Your task to perform on an android device: Show me popular games on the Play Store Image 0: 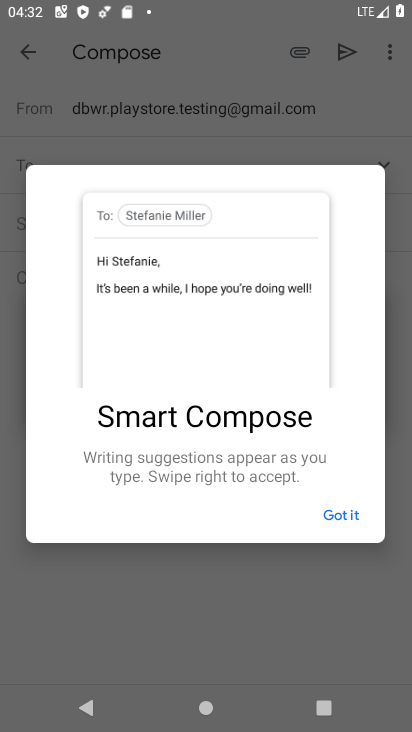
Step 0: press home button
Your task to perform on an android device: Show me popular games on the Play Store Image 1: 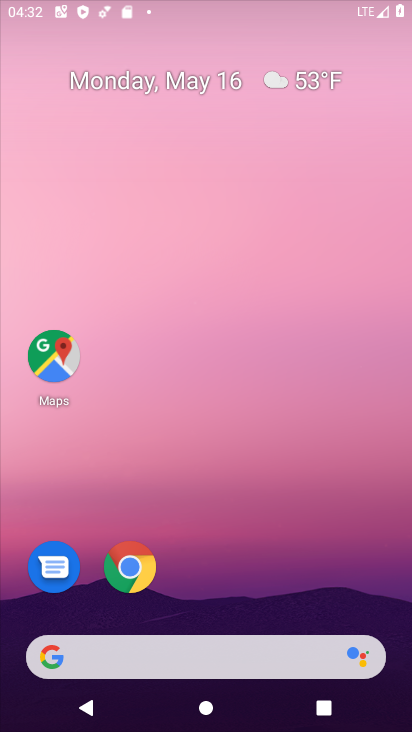
Step 1: drag from (270, 680) to (231, 118)
Your task to perform on an android device: Show me popular games on the Play Store Image 2: 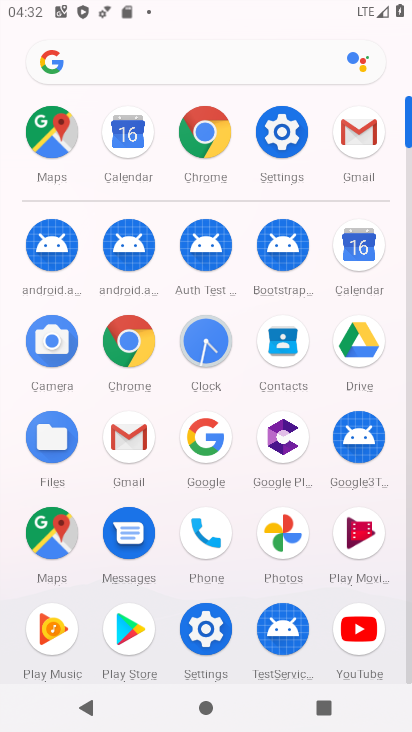
Step 2: drag from (301, 607) to (284, 246)
Your task to perform on an android device: Show me popular games on the Play Store Image 3: 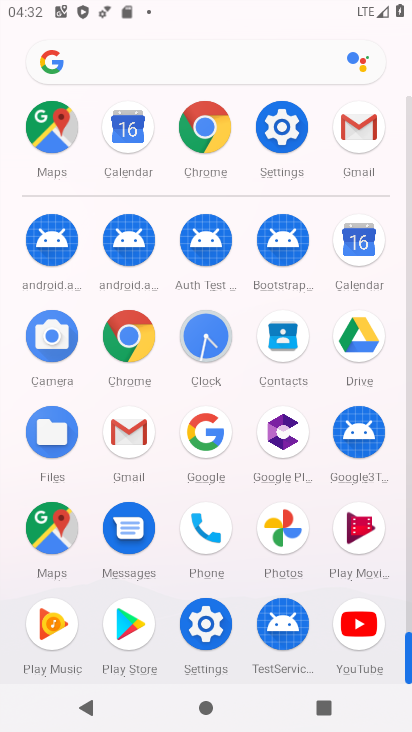
Step 3: click (129, 624)
Your task to perform on an android device: Show me popular games on the Play Store Image 4: 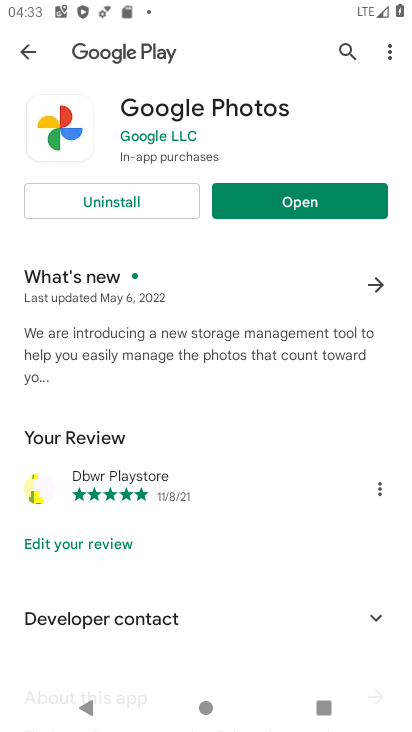
Step 4: press home button
Your task to perform on an android device: Show me popular games on the Play Store Image 5: 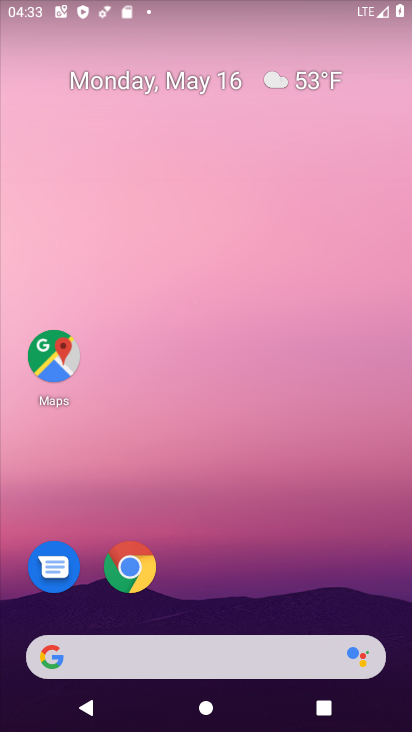
Step 5: drag from (171, 663) to (190, 115)
Your task to perform on an android device: Show me popular games on the Play Store Image 6: 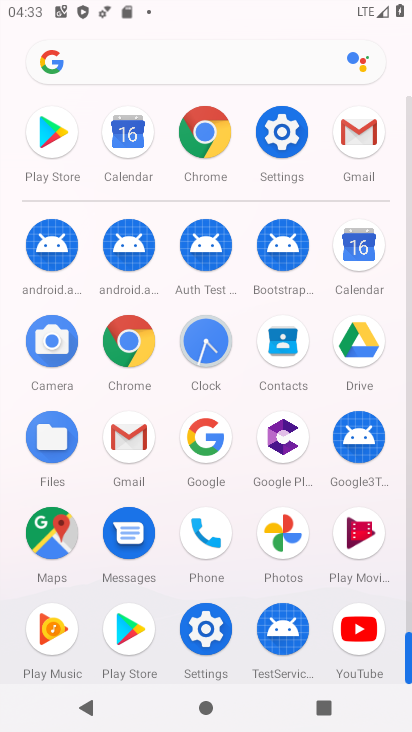
Step 6: click (142, 620)
Your task to perform on an android device: Show me popular games on the Play Store Image 7: 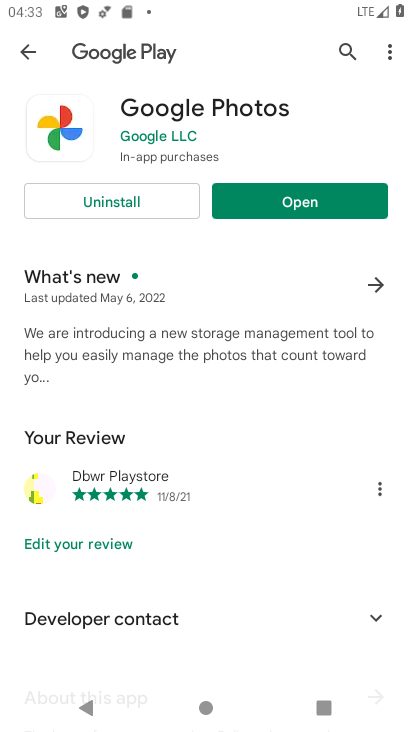
Step 7: press back button
Your task to perform on an android device: Show me popular games on the Play Store Image 8: 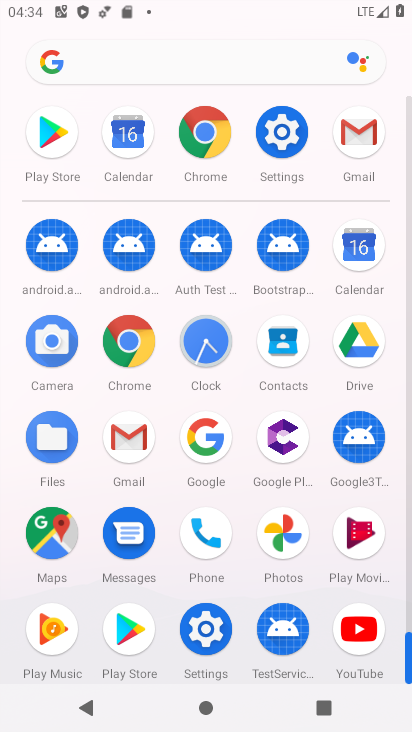
Step 8: click (146, 628)
Your task to perform on an android device: Show me popular games on the Play Store Image 9: 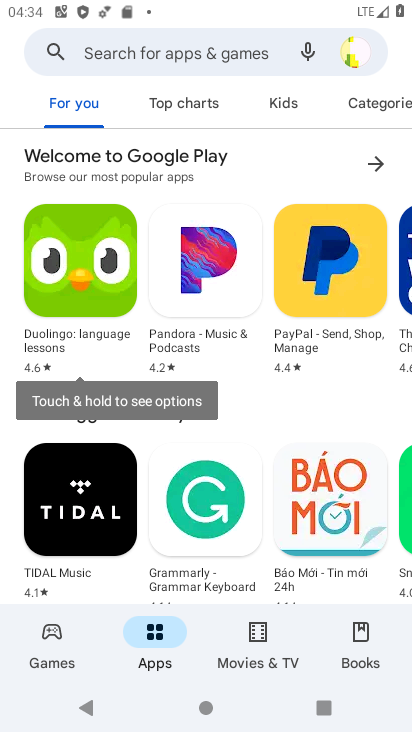
Step 9: click (56, 645)
Your task to perform on an android device: Show me popular games on the Play Store Image 10: 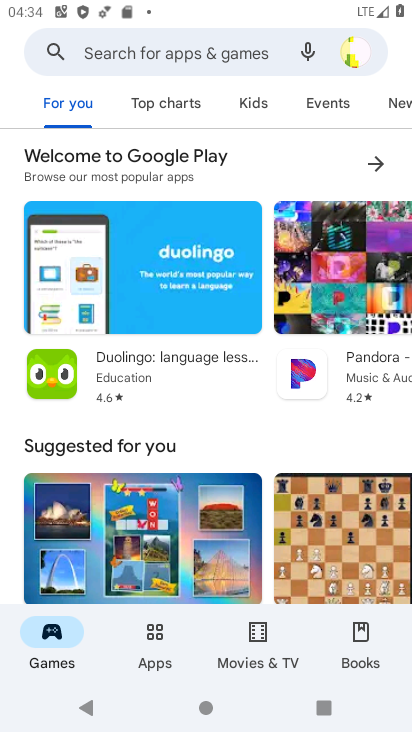
Step 10: task complete